Your task to perform on an android device: turn off location history Image 0: 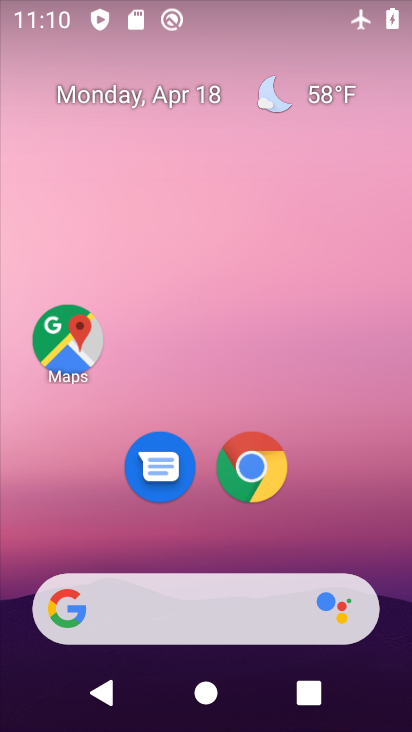
Step 0: drag from (202, 432) to (226, 113)
Your task to perform on an android device: turn off location history Image 1: 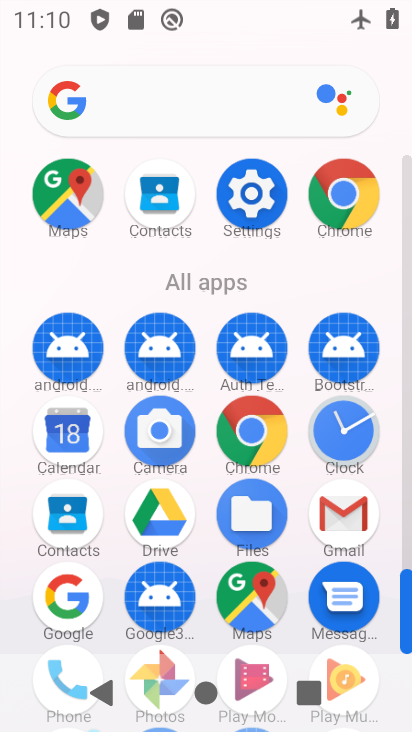
Step 1: click (242, 190)
Your task to perform on an android device: turn off location history Image 2: 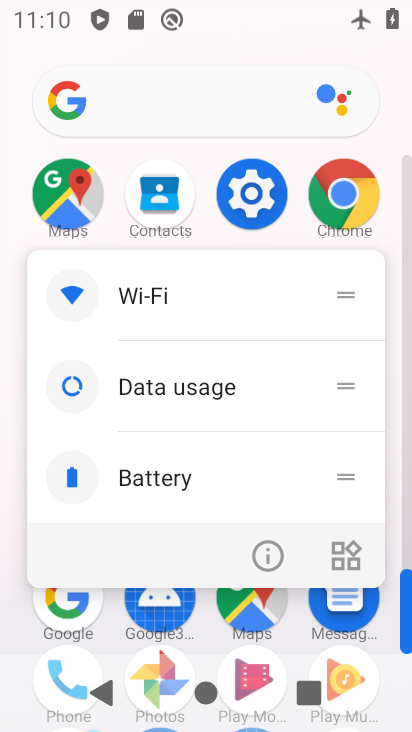
Step 2: click (245, 206)
Your task to perform on an android device: turn off location history Image 3: 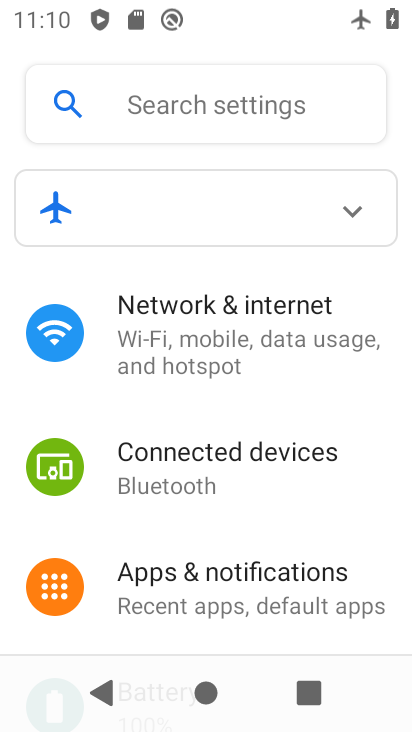
Step 3: drag from (259, 519) to (220, 82)
Your task to perform on an android device: turn off location history Image 4: 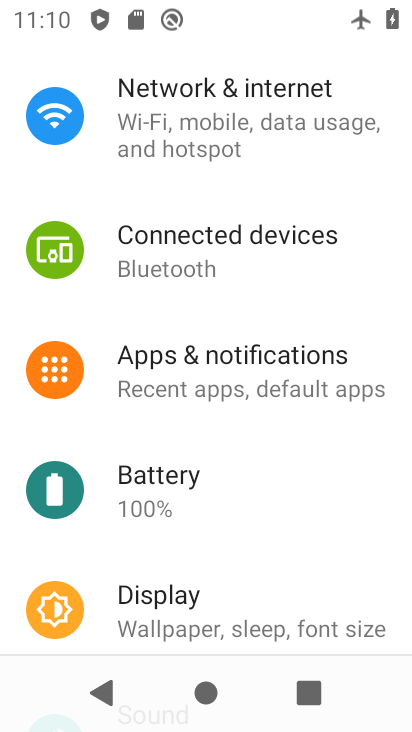
Step 4: drag from (252, 575) to (230, 107)
Your task to perform on an android device: turn off location history Image 5: 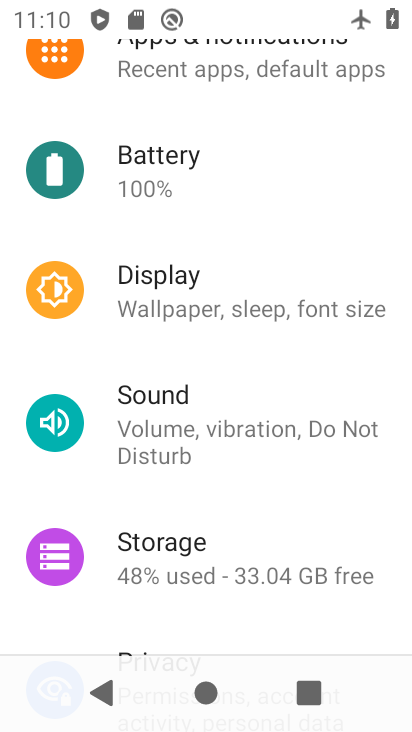
Step 5: drag from (296, 175) to (275, 36)
Your task to perform on an android device: turn off location history Image 6: 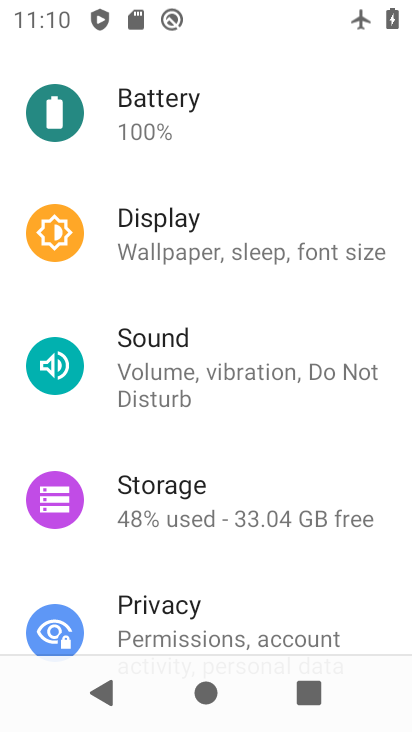
Step 6: drag from (222, 519) to (249, 53)
Your task to perform on an android device: turn off location history Image 7: 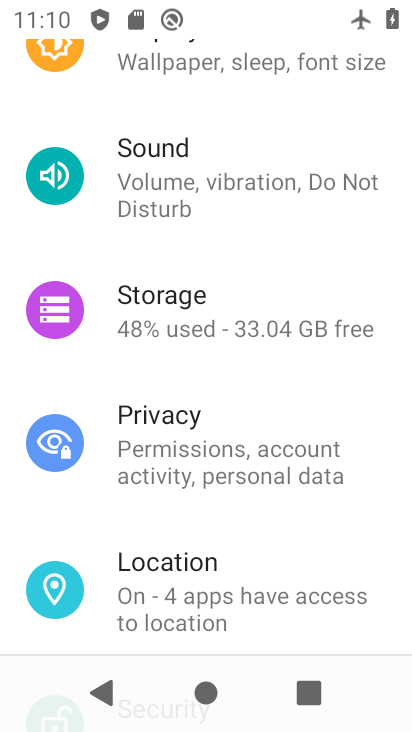
Step 7: click (239, 570)
Your task to perform on an android device: turn off location history Image 8: 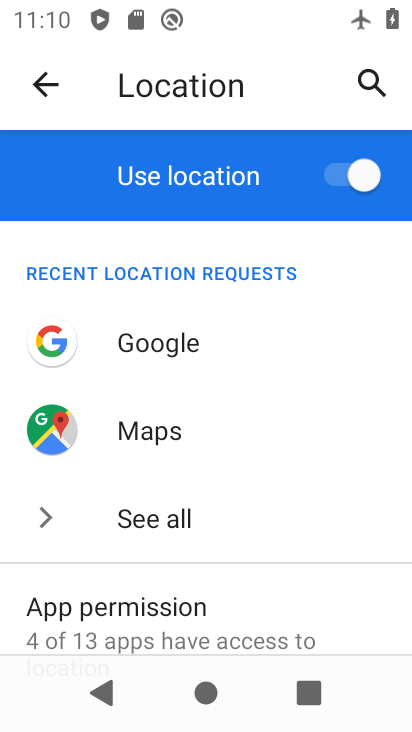
Step 8: drag from (263, 556) to (243, 107)
Your task to perform on an android device: turn off location history Image 9: 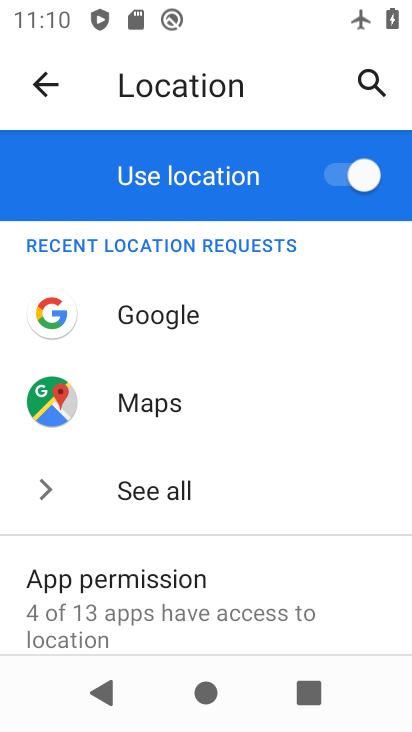
Step 9: drag from (242, 566) to (244, 164)
Your task to perform on an android device: turn off location history Image 10: 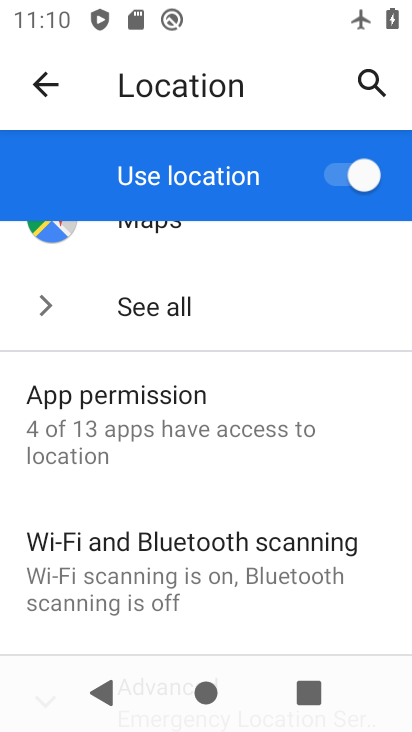
Step 10: drag from (222, 513) to (248, 345)
Your task to perform on an android device: turn off location history Image 11: 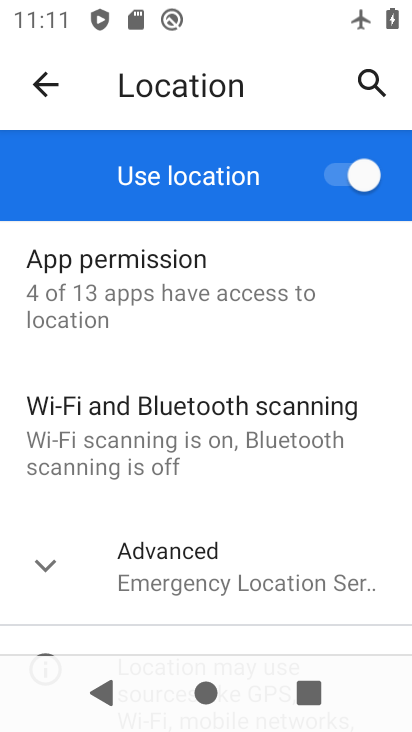
Step 11: click (251, 551)
Your task to perform on an android device: turn off location history Image 12: 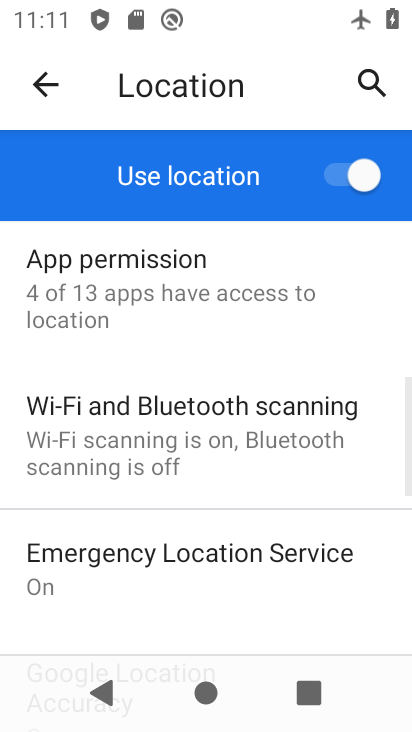
Step 12: drag from (241, 523) to (241, 312)
Your task to perform on an android device: turn off location history Image 13: 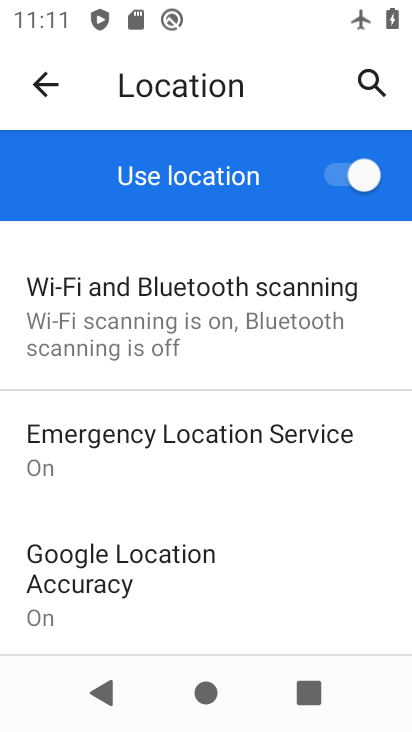
Step 13: drag from (225, 577) to (221, 392)
Your task to perform on an android device: turn off location history Image 14: 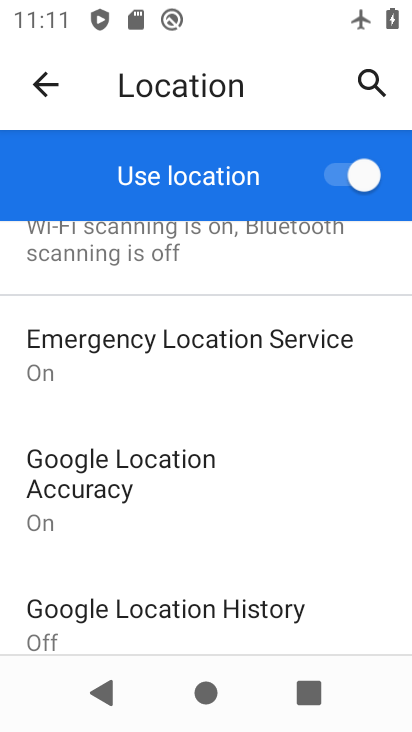
Step 14: click (245, 600)
Your task to perform on an android device: turn off location history Image 15: 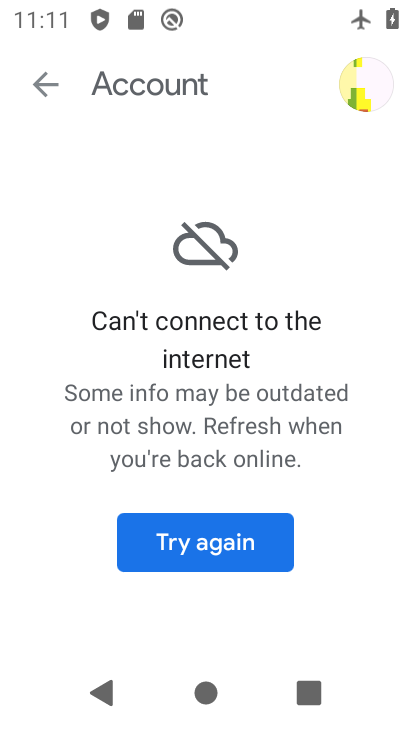
Step 15: task complete